Your task to perform on an android device: What's the weather today? Image 0: 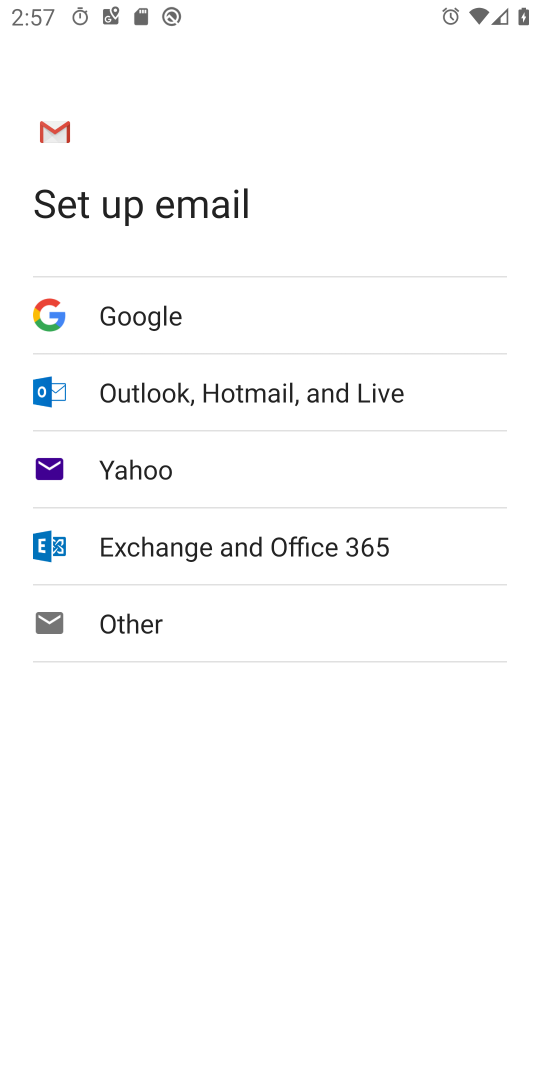
Step 0: press home button
Your task to perform on an android device: What's the weather today? Image 1: 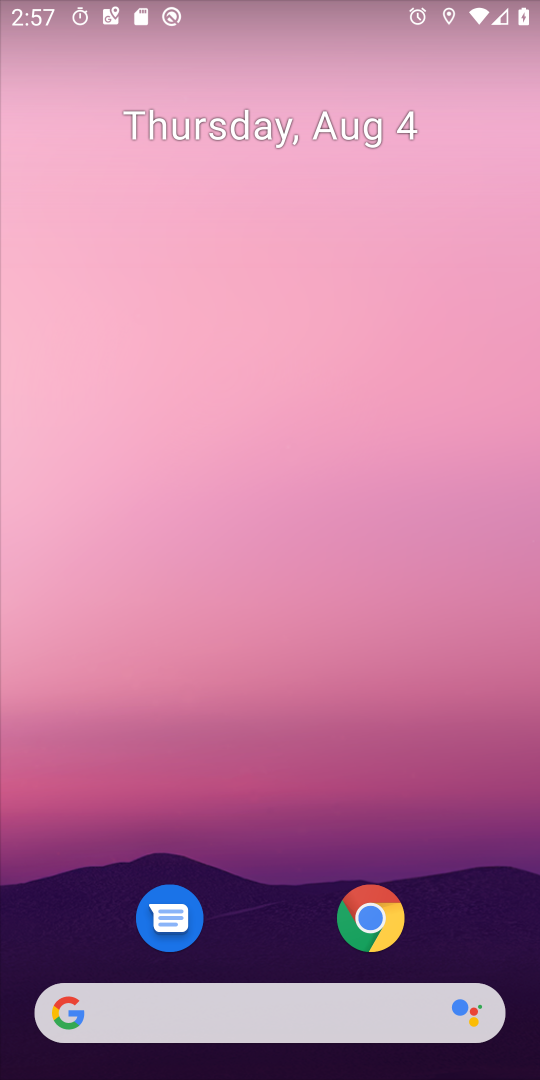
Step 1: drag from (246, 918) to (273, 367)
Your task to perform on an android device: What's the weather today? Image 2: 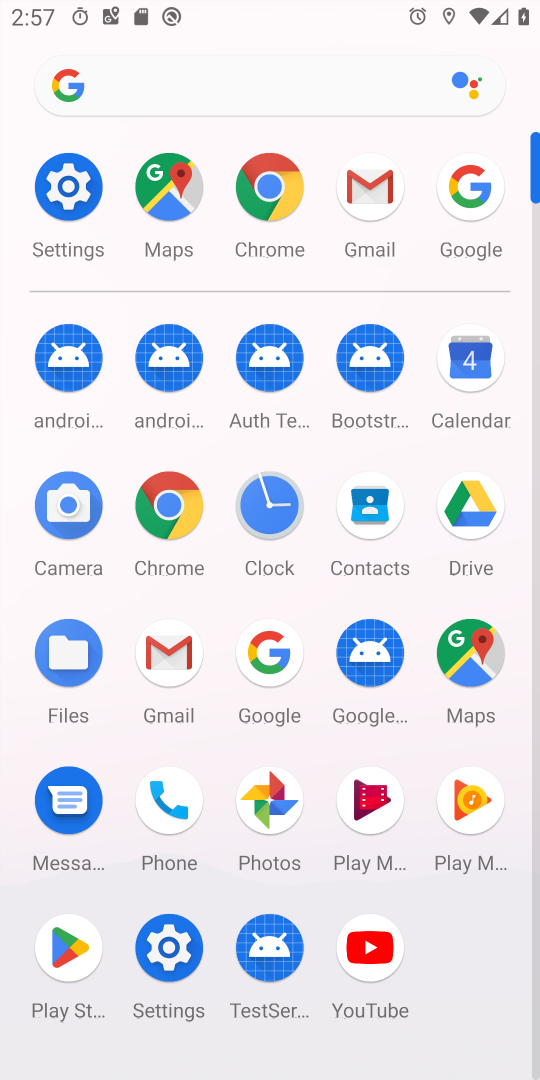
Step 2: click (274, 663)
Your task to perform on an android device: What's the weather today? Image 3: 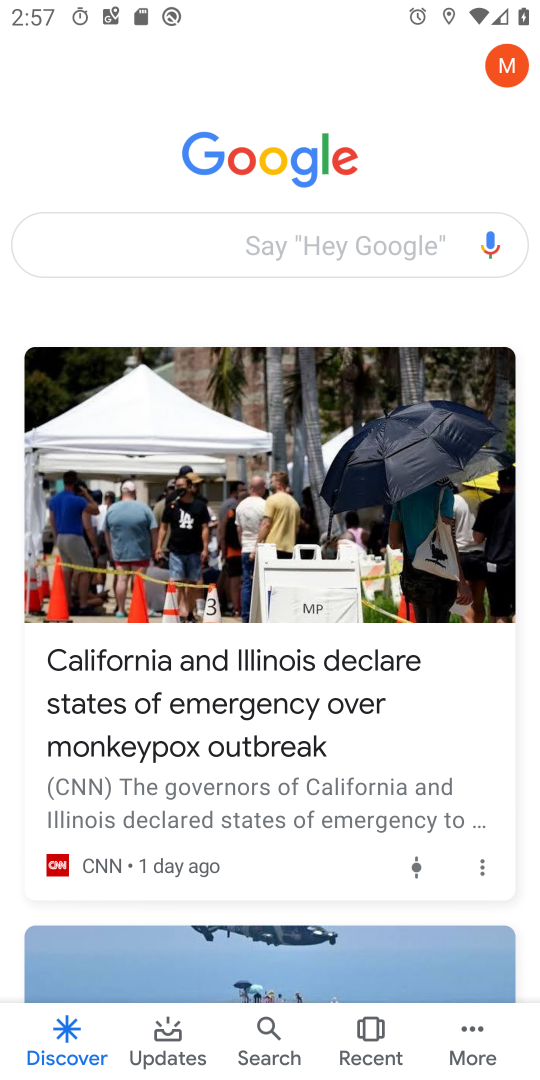
Step 3: click (246, 257)
Your task to perform on an android device: What's the weather today? Image 4: 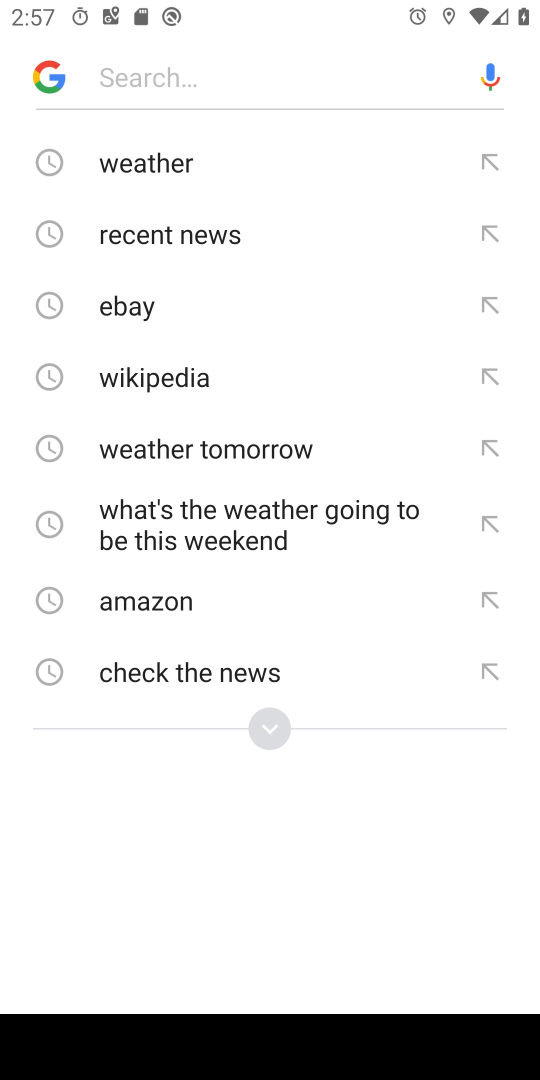
Step 4: click (212, 163)
Your task to perform on an android device: What's the weather today? Image 5: 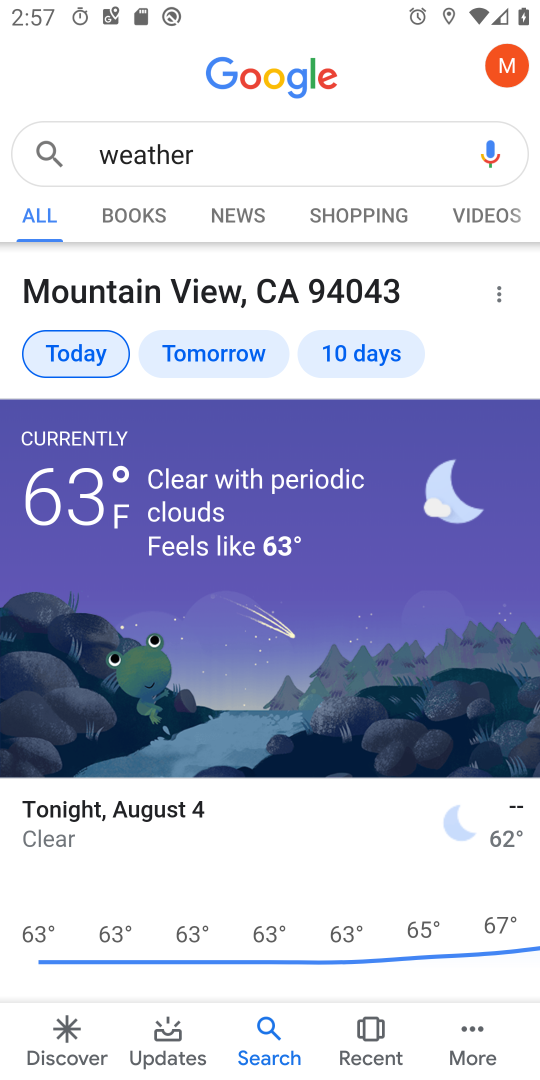
Step 5: task complete